Your task to perform on an android device: Search for vegetarian restaurants on Maps Image 0: 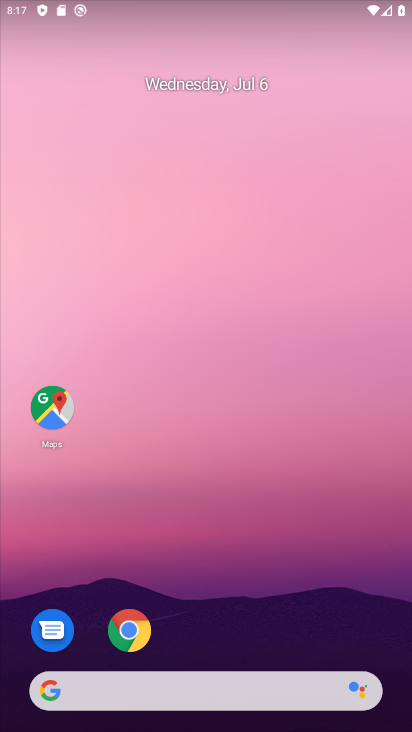
Step 0: drag from (392, 702) to (329, 157)
Your task to perform on an android device: Search for vegetarian restaurants on Maps Image 1: 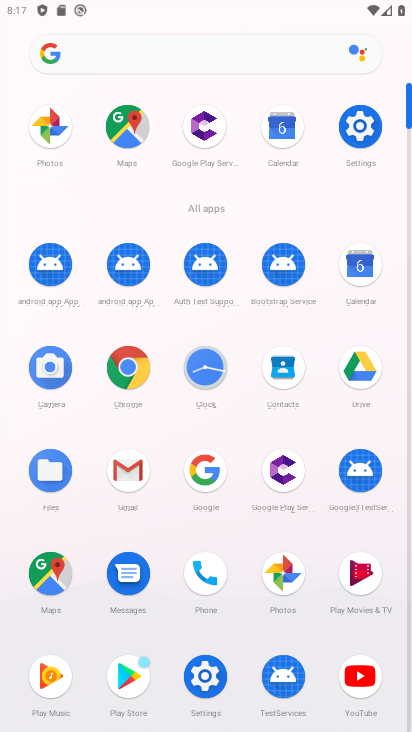
Step 1: click (42, 570)
Your task to perform on an android device: Search for vegetarian restaurants on Maps Image 2: 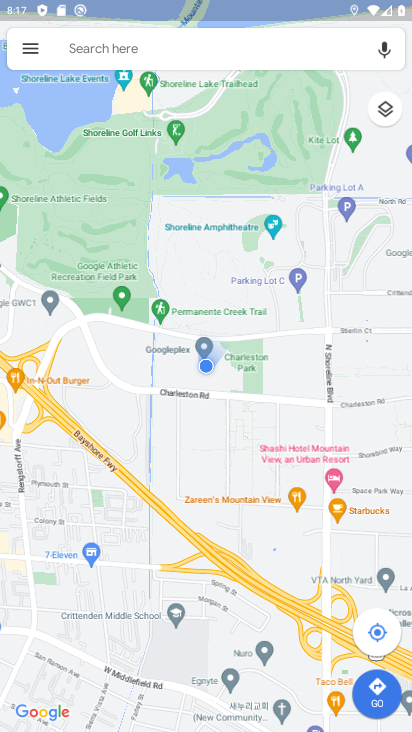
Step 2: click (125, 49)
Your task to perform on an android device: Search for vegetarian restaurants on Maps Image 3: 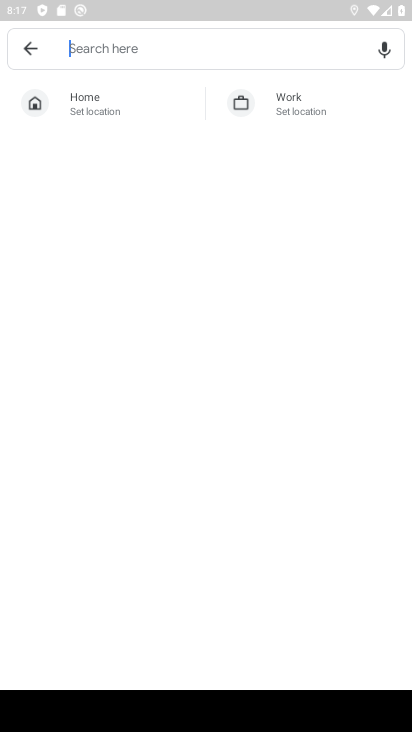
Step 3: type "vegetarian restaurant"
Your task to perform on an android device: Search for vegetarian restaurants on Maps Image 4: 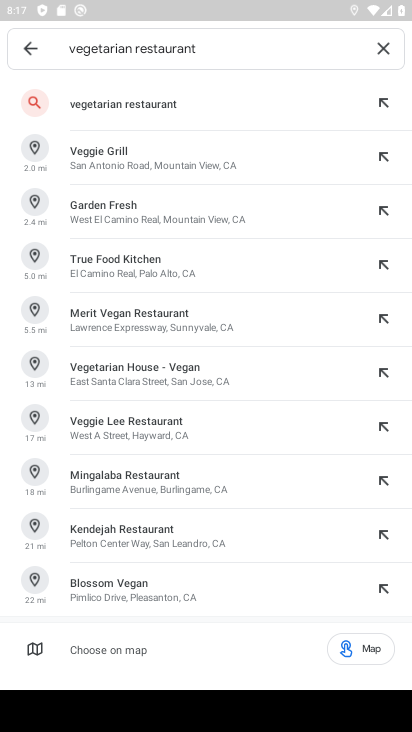
Step 4: click (146, 96)
Your task to perform on an android device: Search for vegetarian restaurants on Maps Image 5: 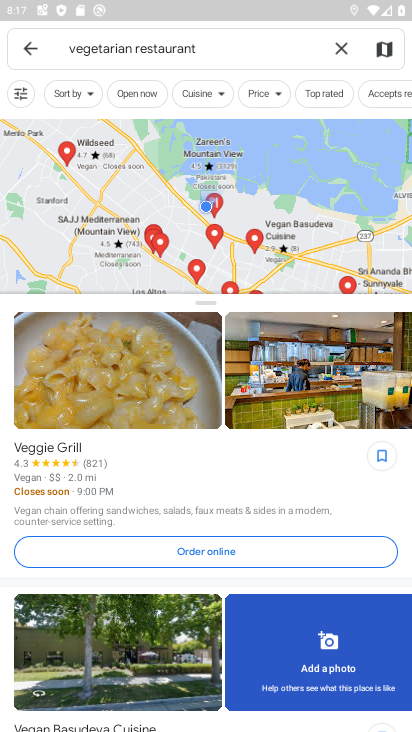
Step 5: task complete